Your task to perform on an android device: Open calendar and show me the third week of next month Image 0: 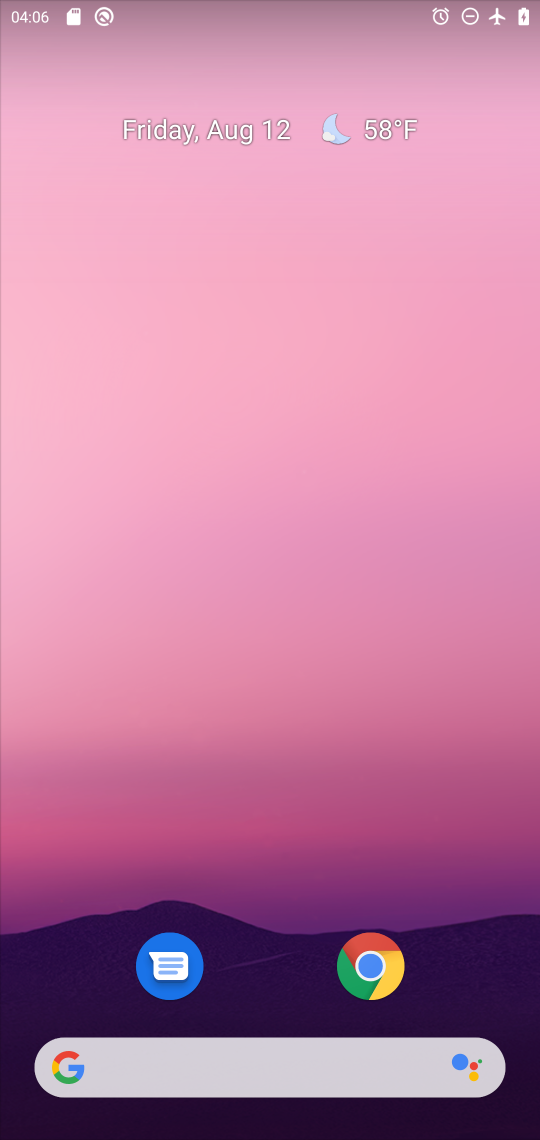
Step 0: click (255, 124)
Your task to perform on an android device: Open calendar and show me the third week of next month Image 1: 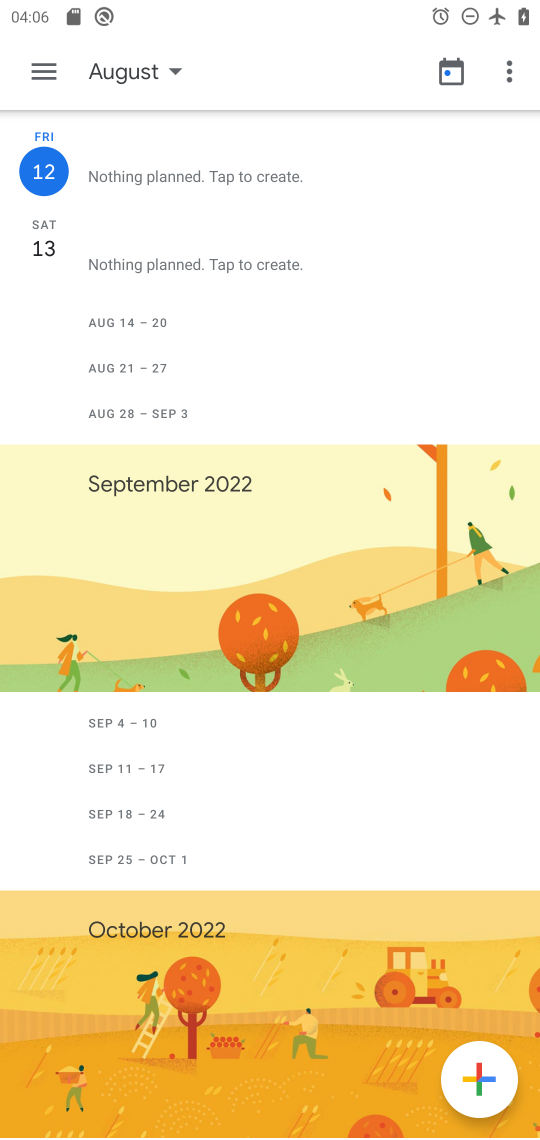
Step 1: click (94, 63)
Your task to perform on an android device: Open calendar and show me the third week of next month Image 2: 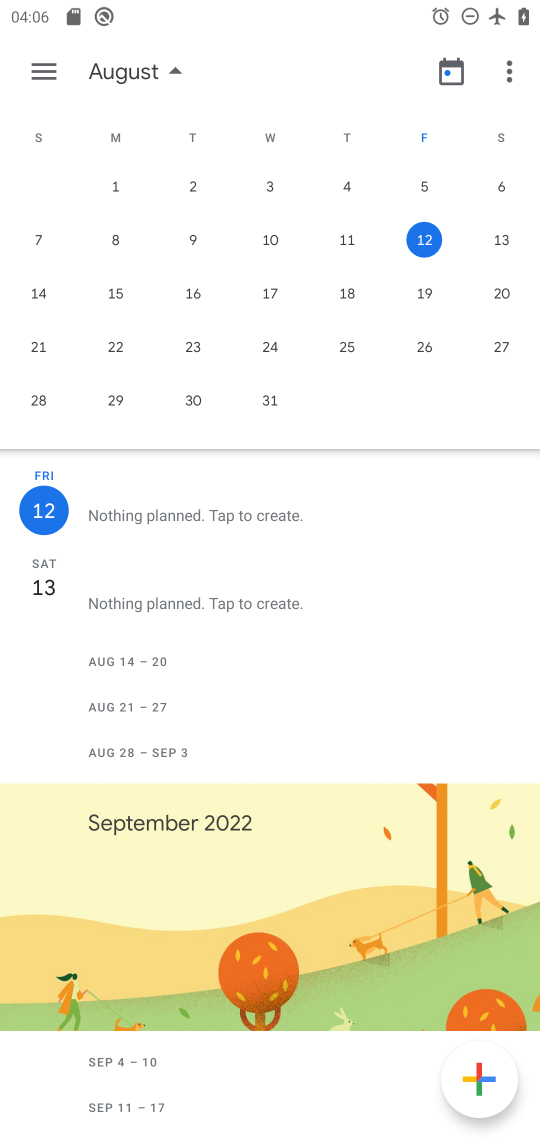
Step 2: drag from (453, 296) to (160, 271)
Your task to perform on an android device: Open calendar and show me the third week of next month Image 3: 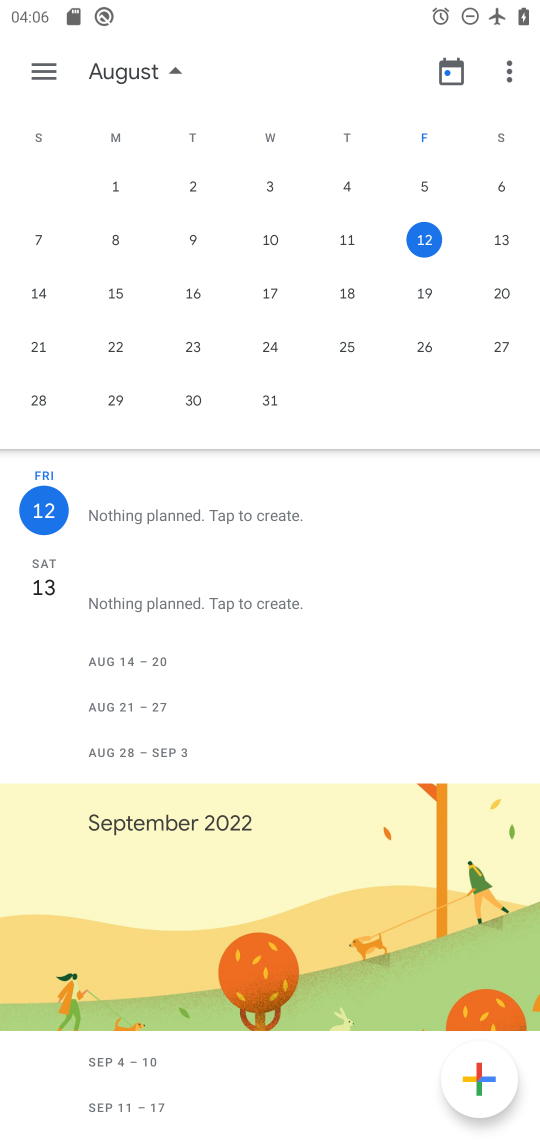
Step 3: drag from (456, 291) to (0, 291)
Your task to perform on an android device: Open calendar and show me the third week of next month Image 4: 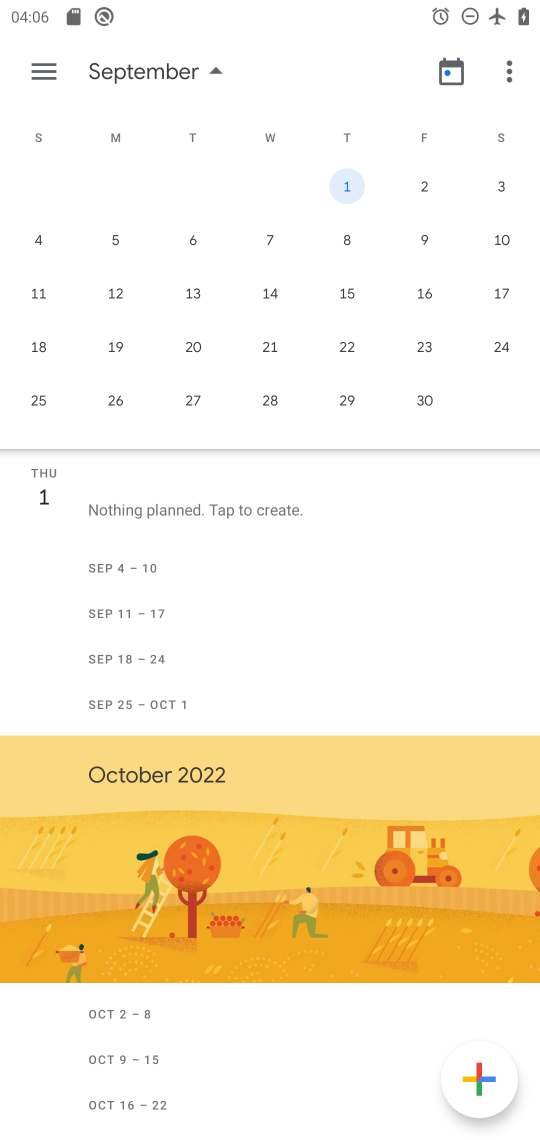
Step 4: click (105, 342)
Your task to perform on an android device: Open calendar and show me the third week of next month Image 5: 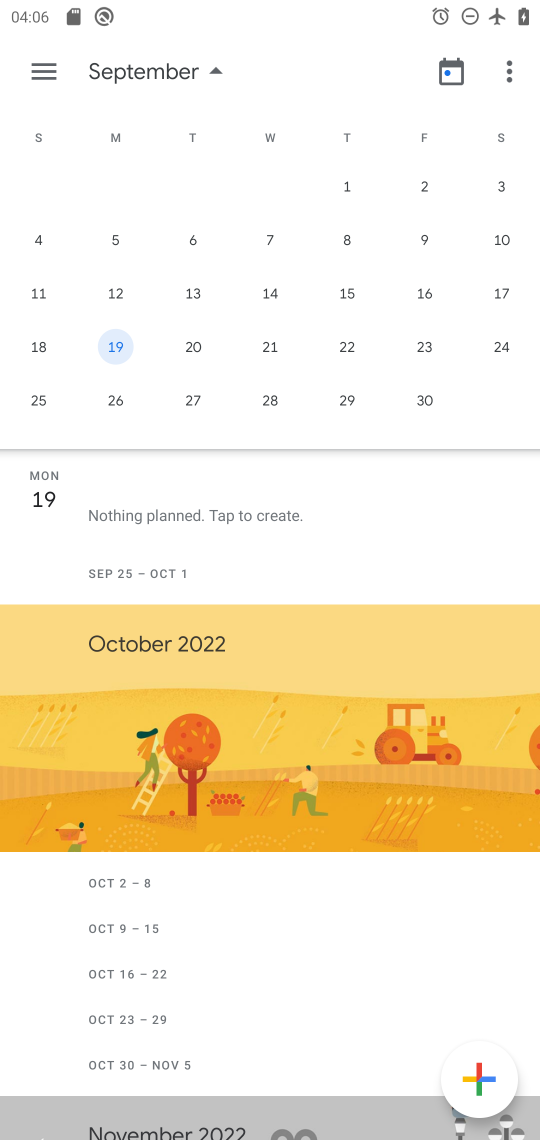
Step 5: click (35, 61)
Your task to perform on an android device: Open calendar and show me the third week of next month Image 6: 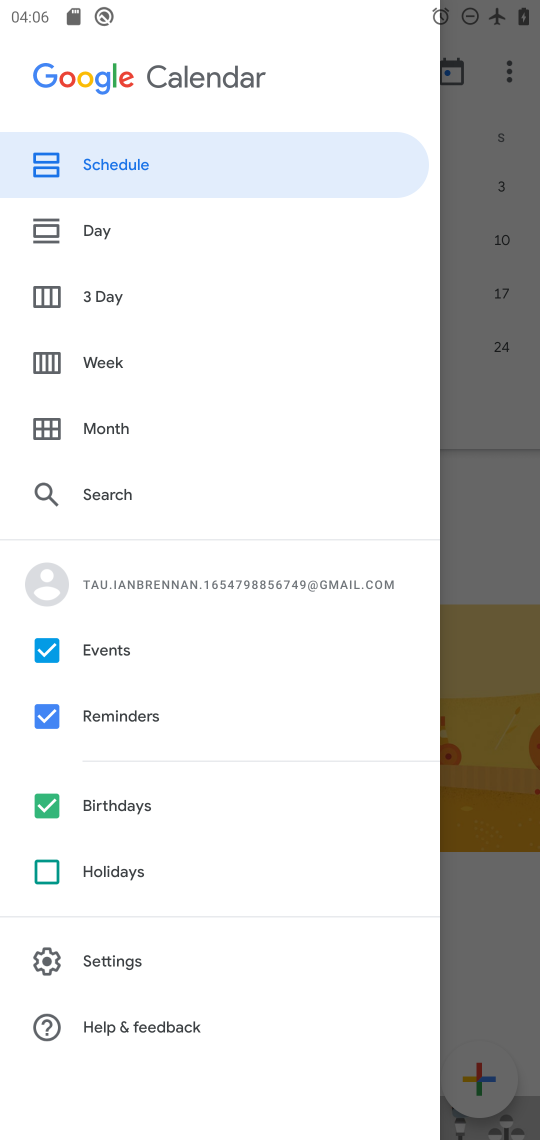
Step 6: click (103, 348)
Your task to perform on an android device: Open calendar and show me the third week of next month Image 7: 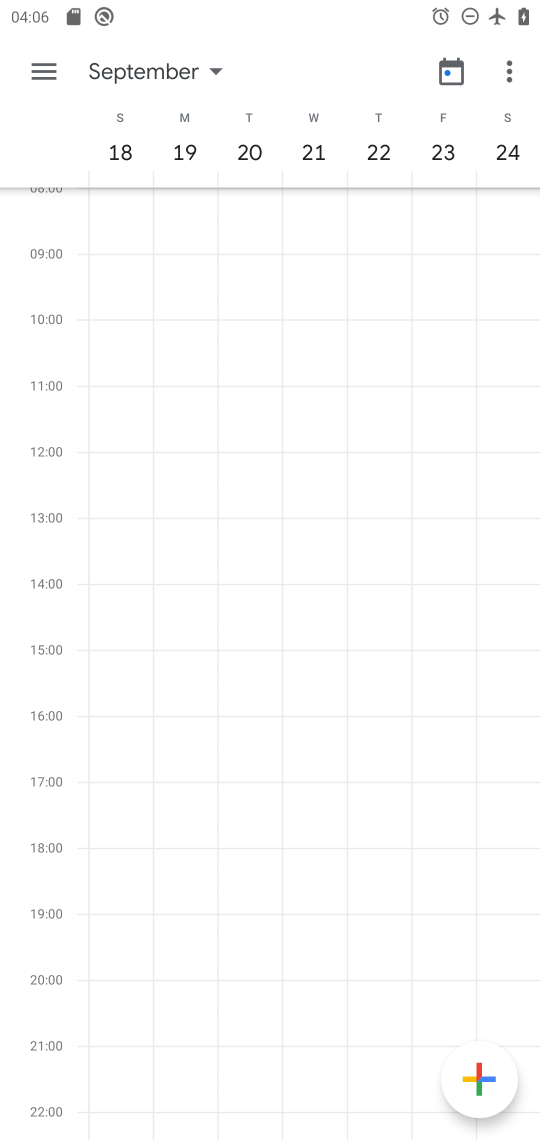
Step 7: task complete